Your task to perform on an android device: install app "TextNow: Call + Text Unlimited" Image 0: 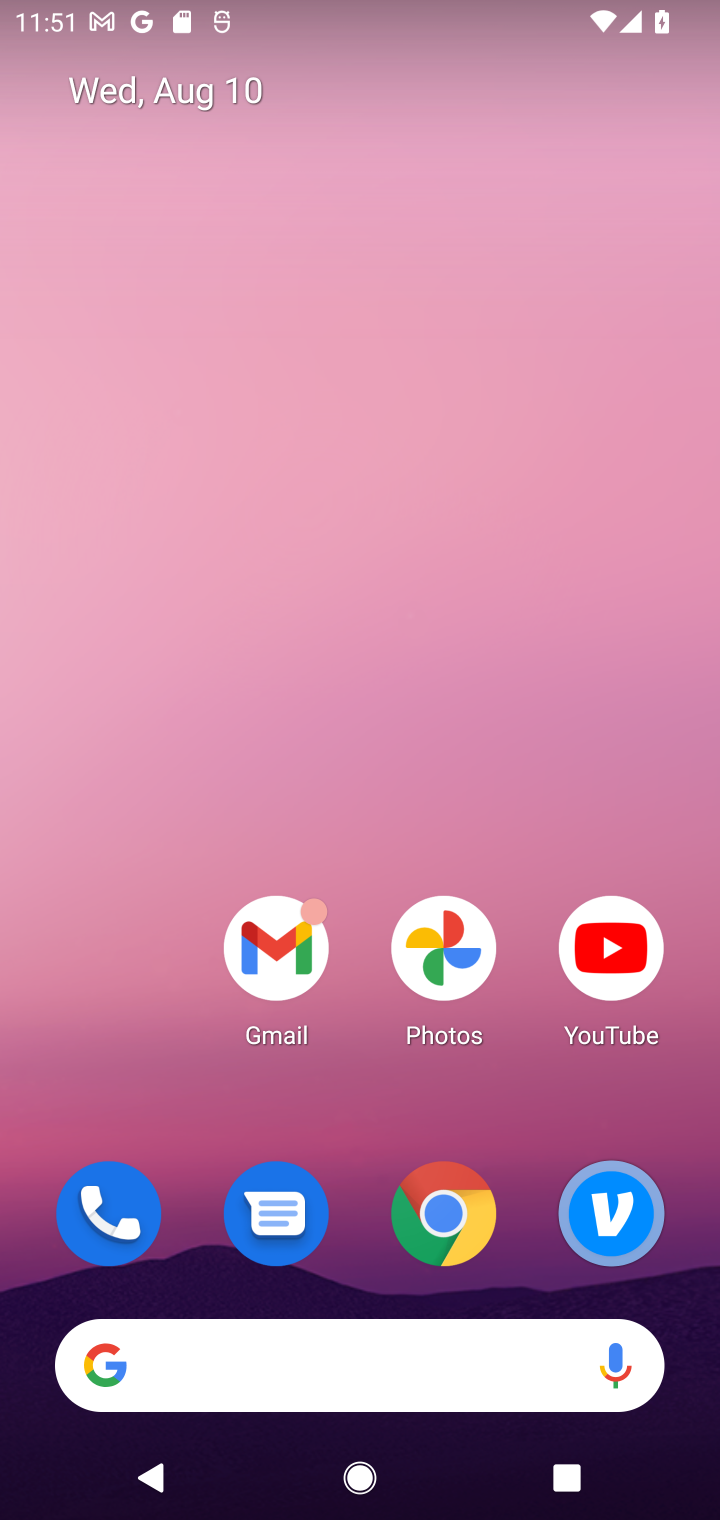
Step 0: drag from (305, 1261) to (453, 309)
Your task to perform on an android device: install app "TextNow: Call + Text Unlimited" Image 1: 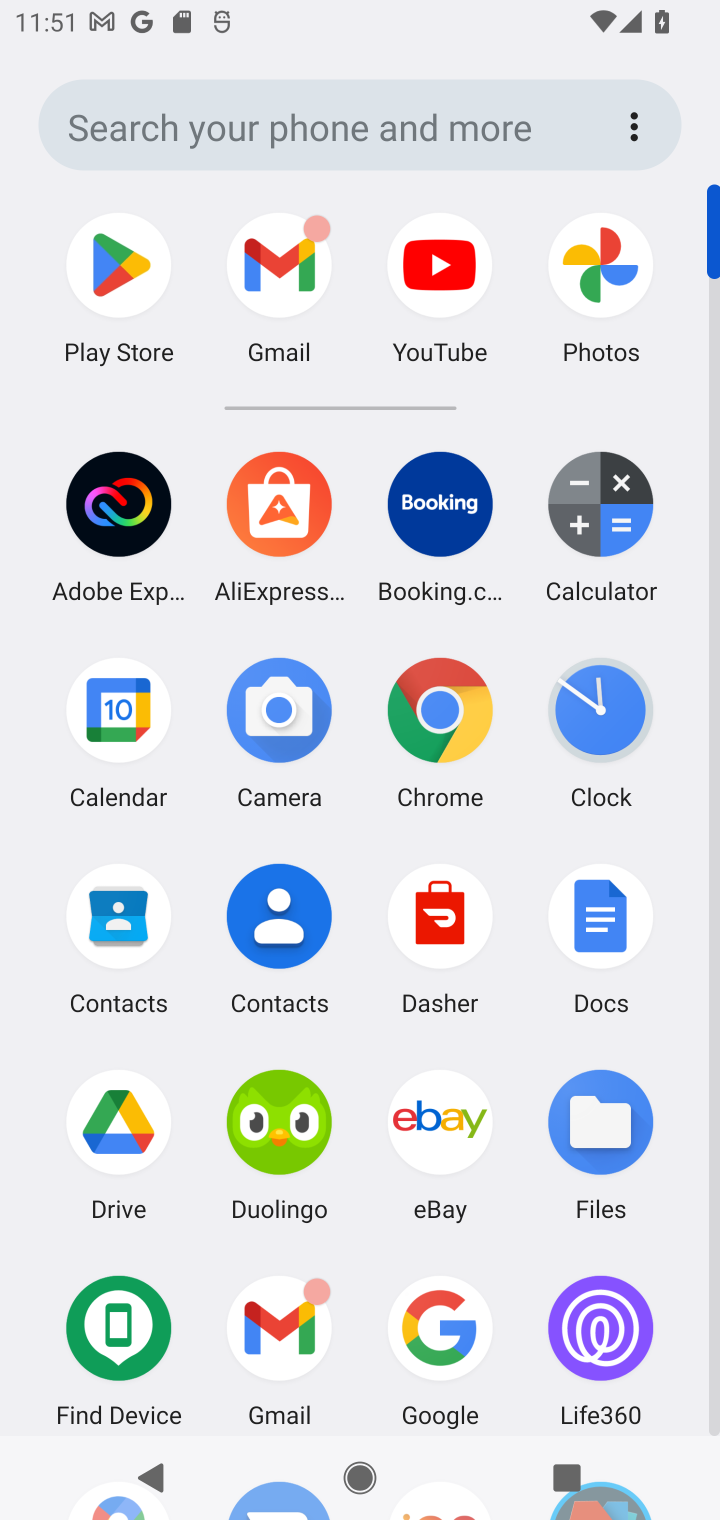
Step 1: click (124, 258)
Your task to perform on an android device: install app "TextNow: Call + Text Unlimited" Image 2: 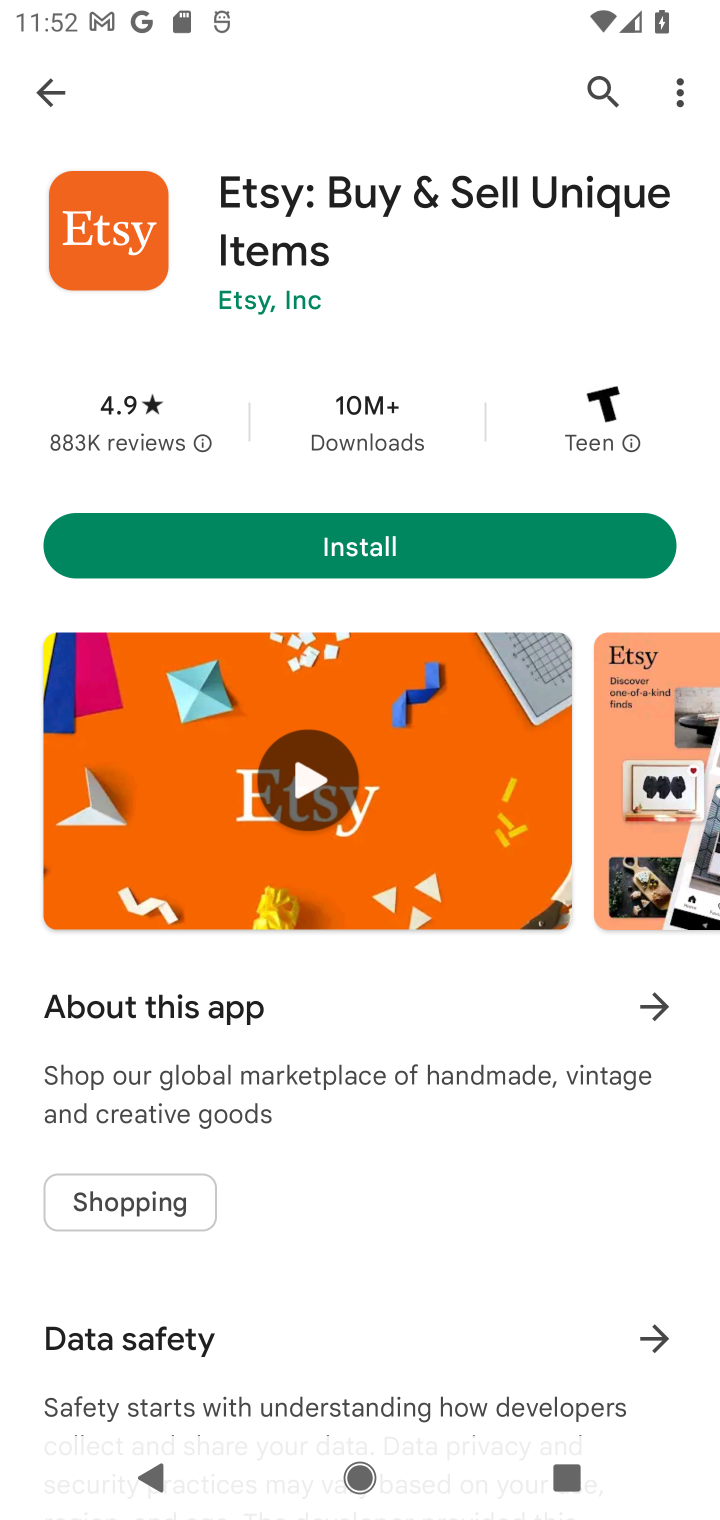
Step 2: press back button
Your task to perform on an android device: install app "TextNow: Call + Text Unlimited" Image 3: 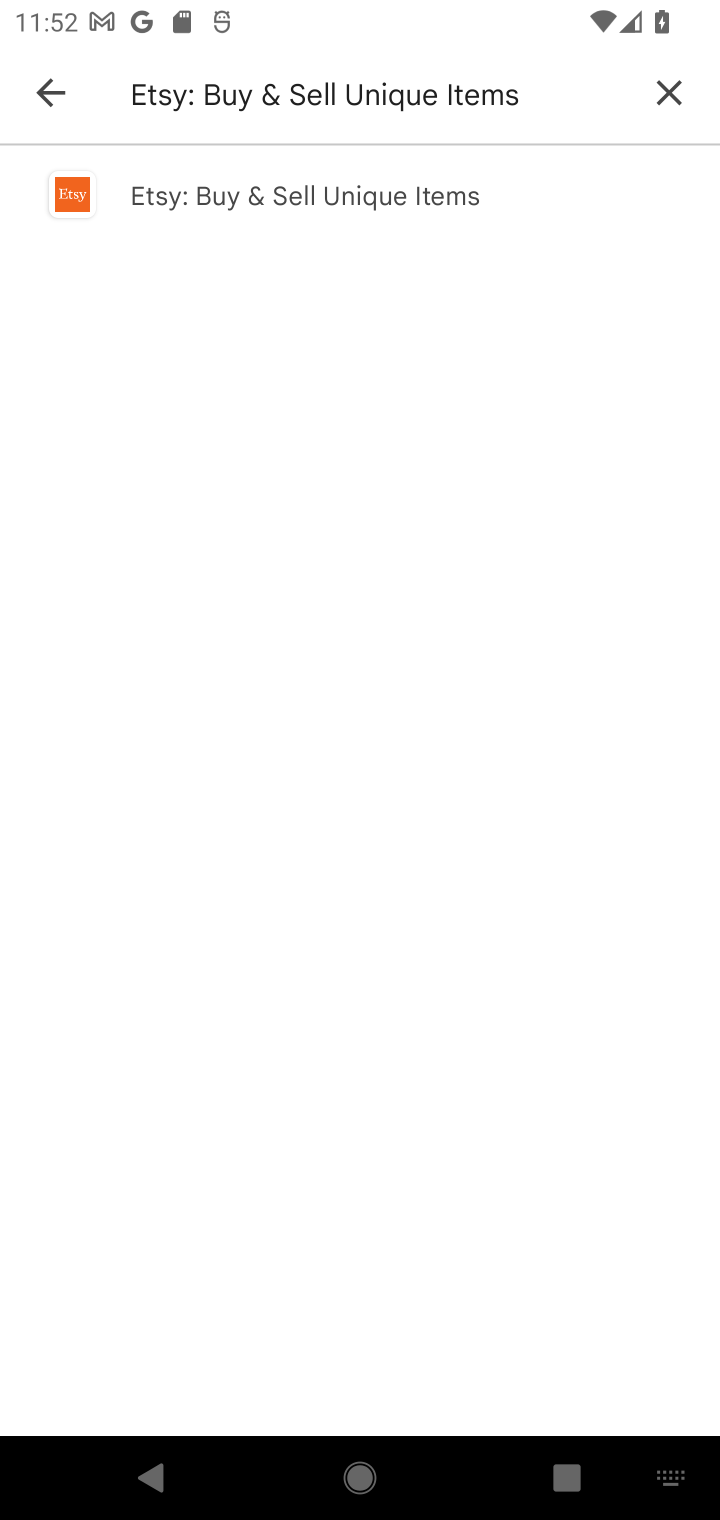
Step 3: press back button
Your task to perform on an android device: install app "TextNow: Call + Text Unlimited" Image 4: 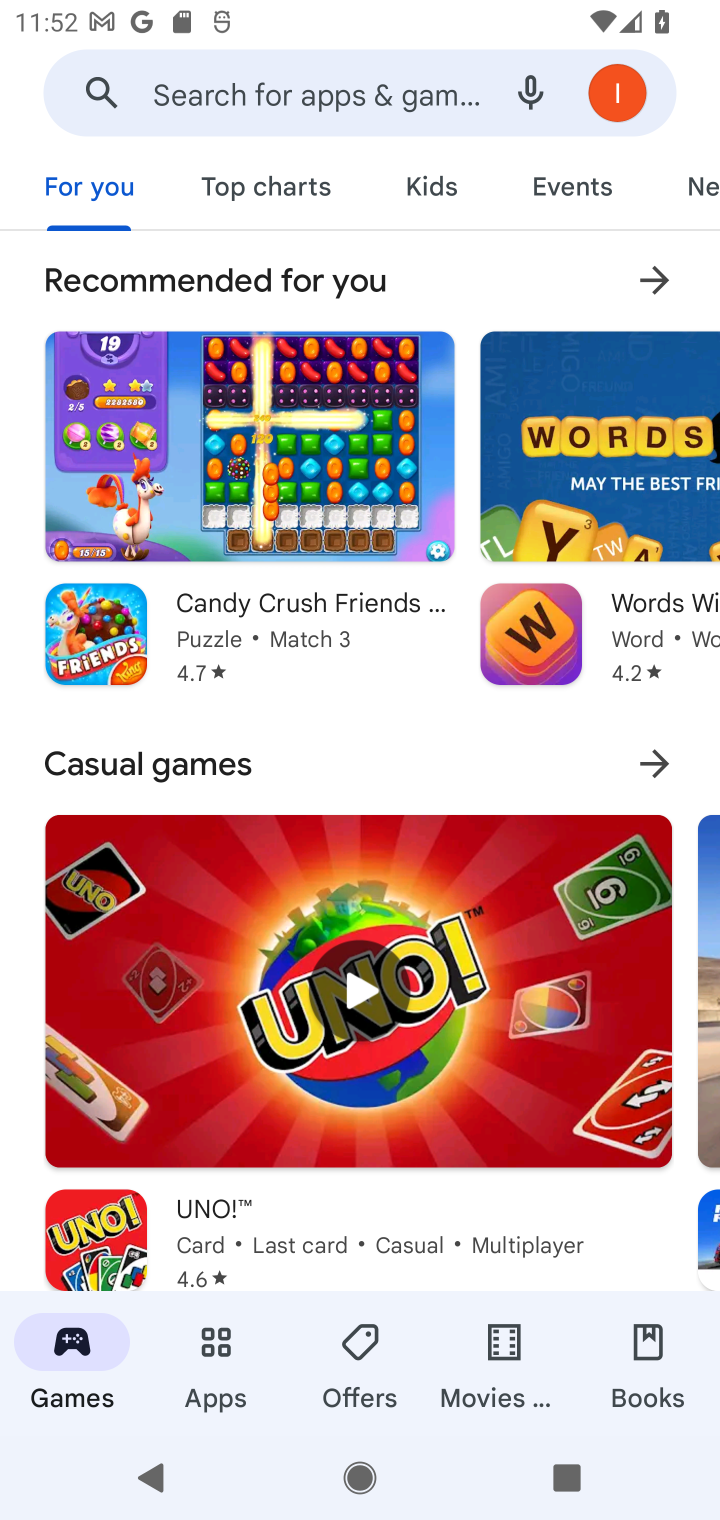
Step 4: click (411, 71)
Your task to perform on an android device: install app "TextNow: Call + Text Unlimited" Image 5: 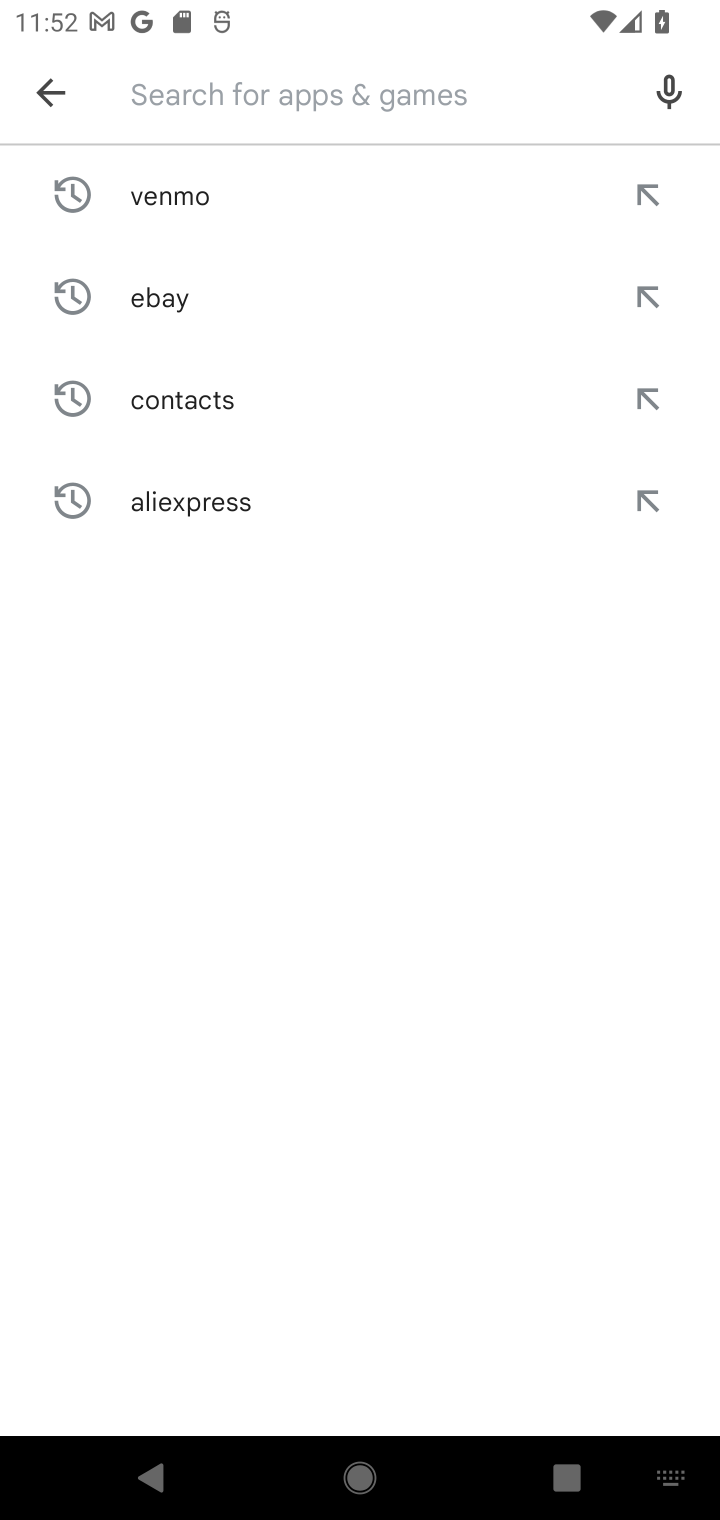
Step 5: click (240, 93)
Your task to perform on an android device: install app "TextNow: Call + Text Unlimited" Image 6: 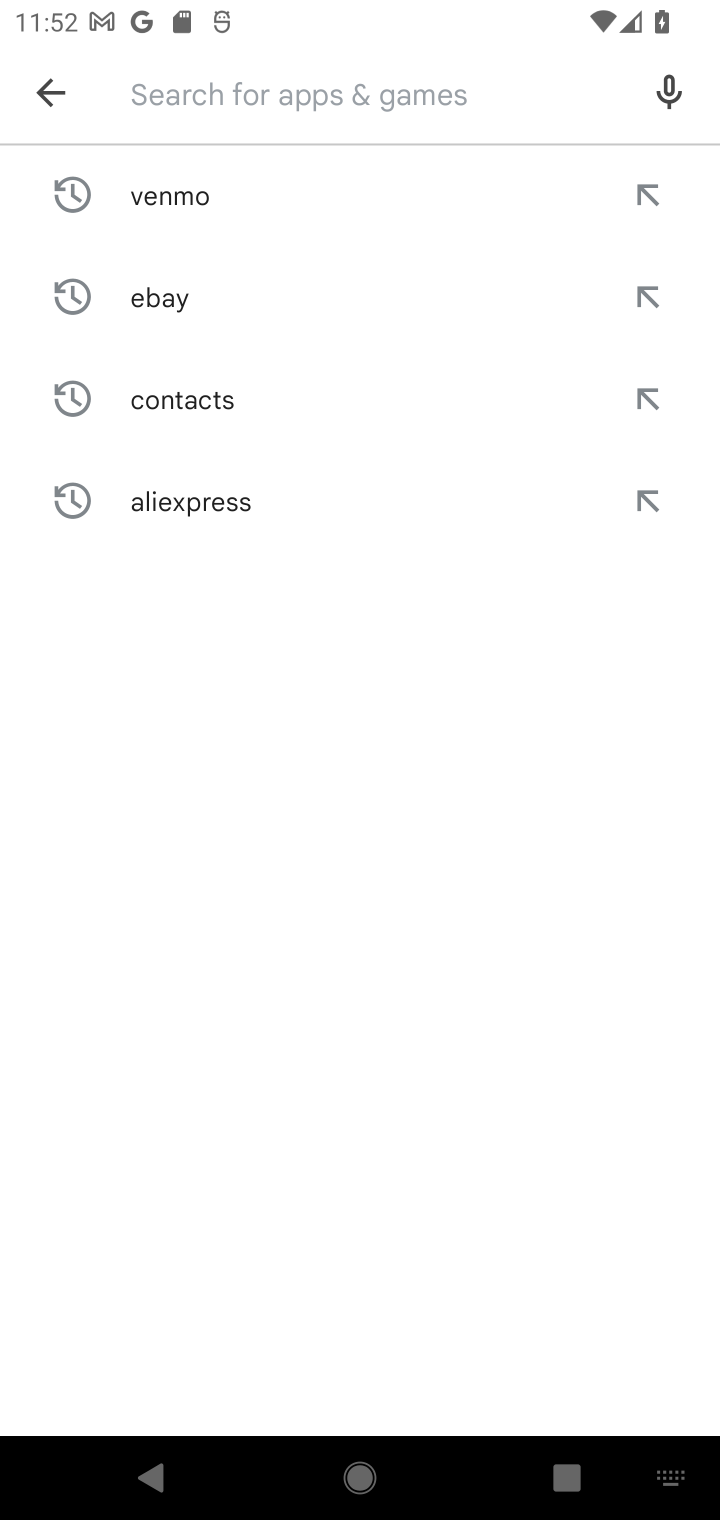
Step 6: type "TextNow: Call + Text Unlimited"
Your task to perform on an android device: install app "TextNow: Call + Text Unlimited" Image 7: 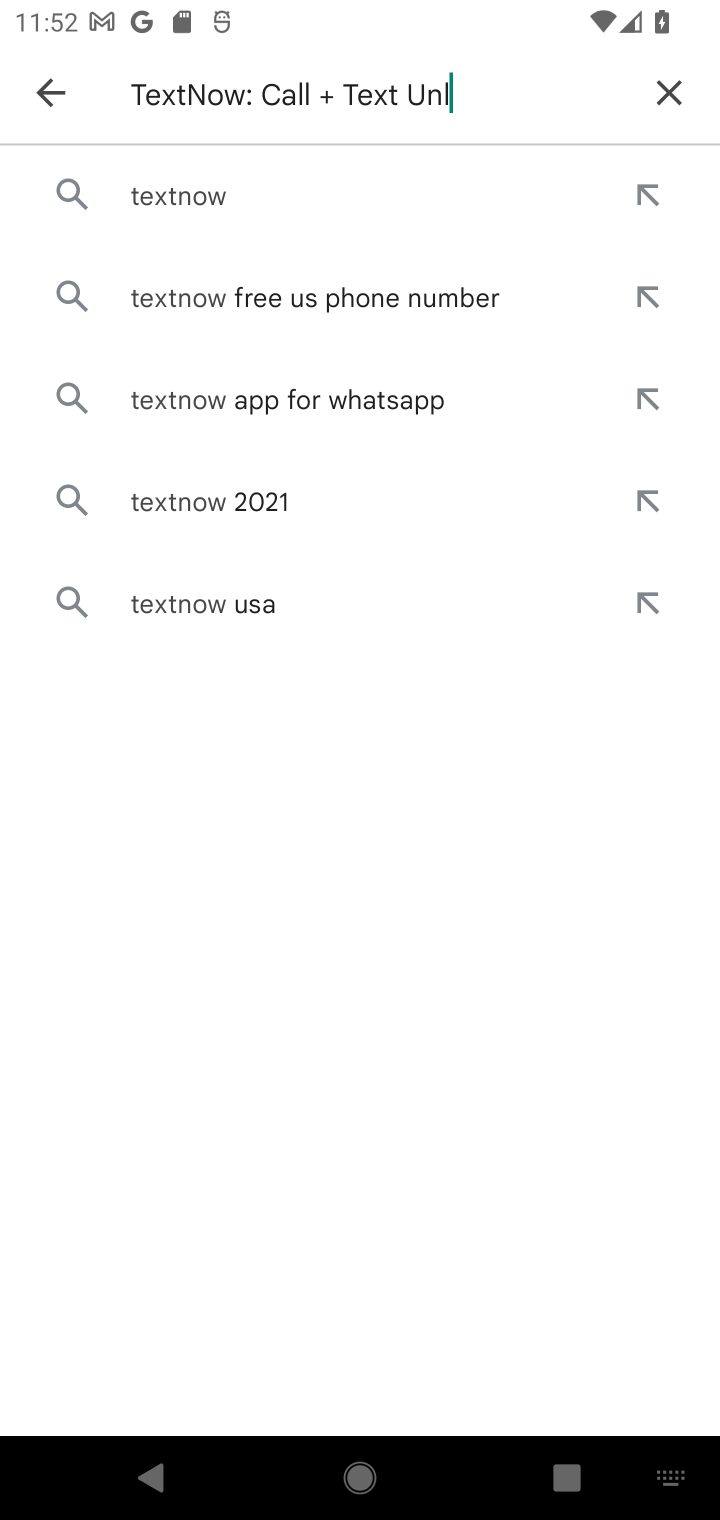
Step 7: type ""
Your task to perform on an android device: install app "TextNow: Call + Text Unlimited" Image 8: 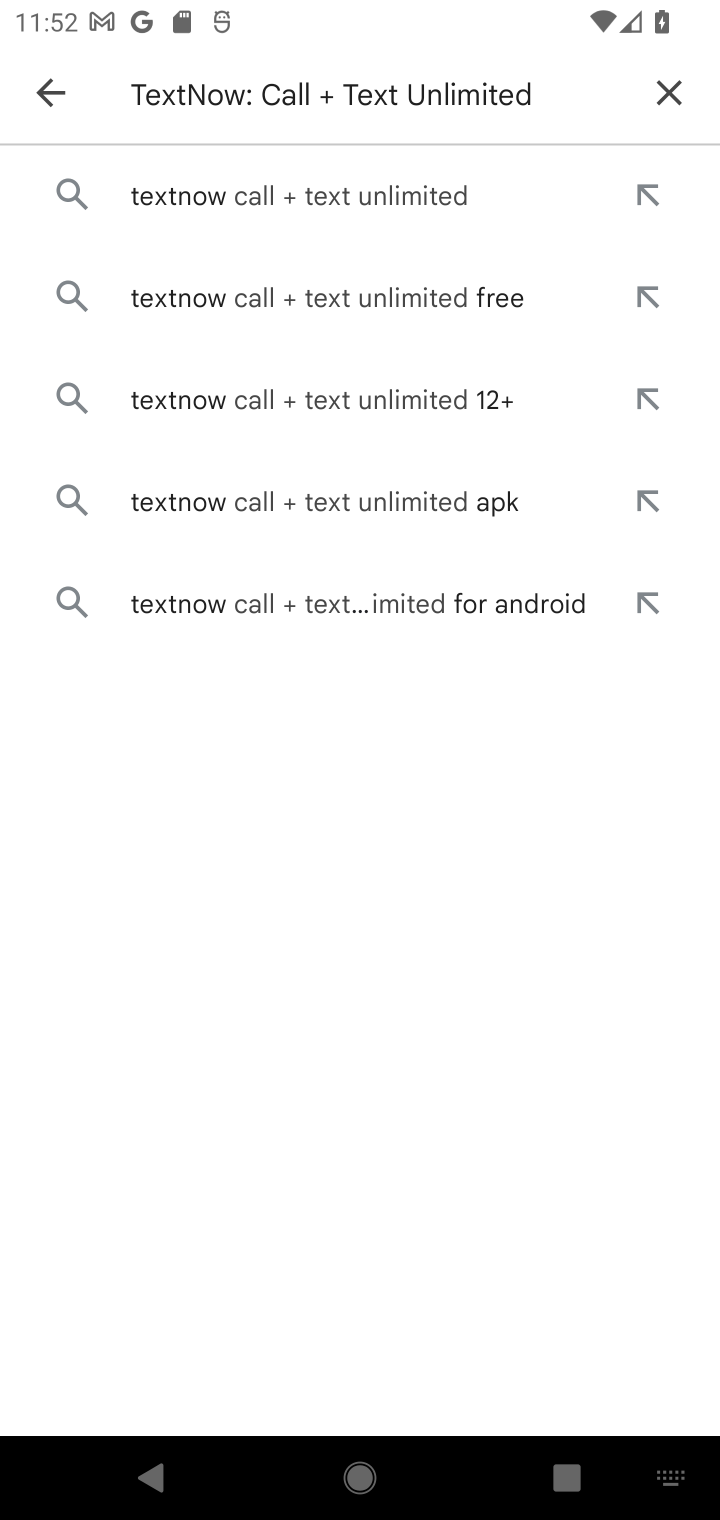
Step 8: click (279, 207)
Your task to perform on an android device: install app "TextNow: Call + Text Unlimited" Image 9: 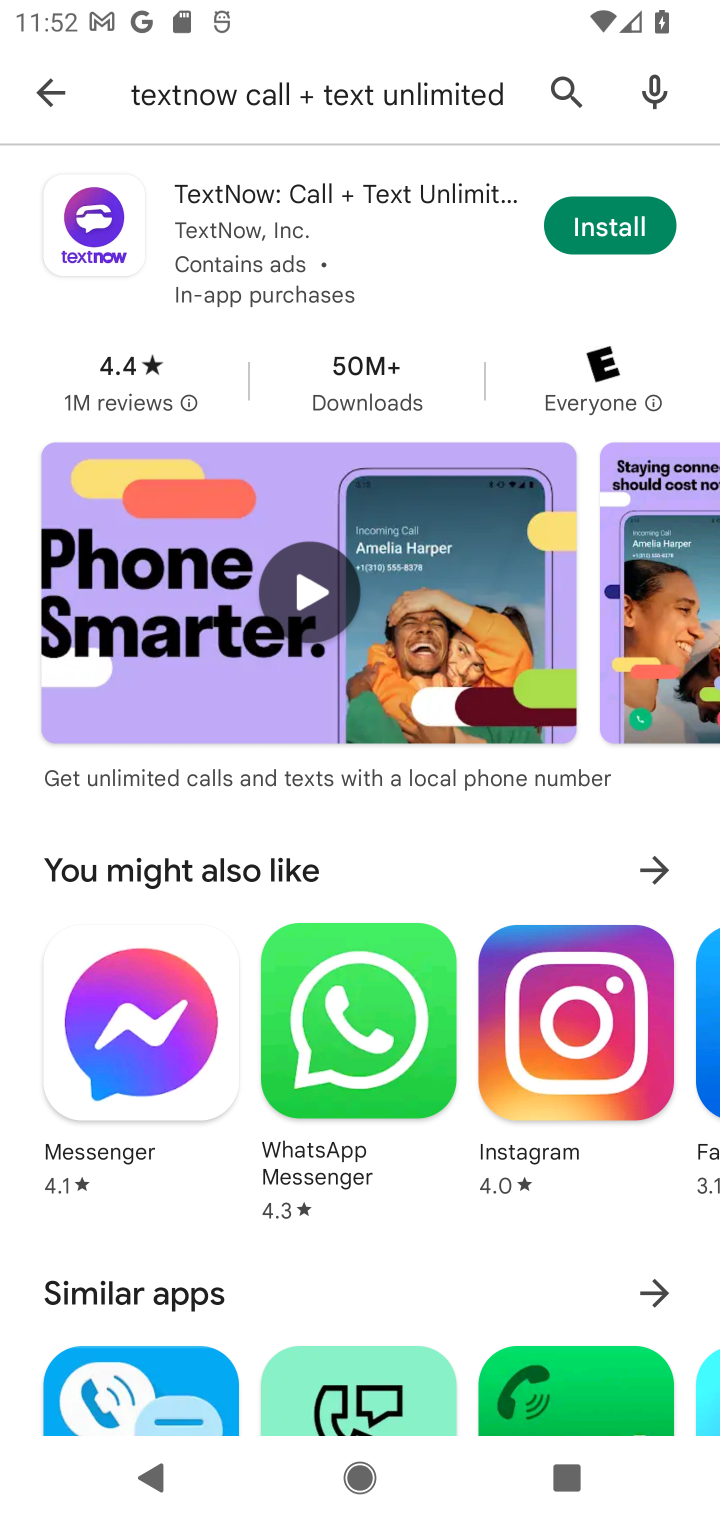
Step 9: click (609, 232)
Your task to perform on an android device: install app "TextNow: Call + Text Unlimited" Image 10: 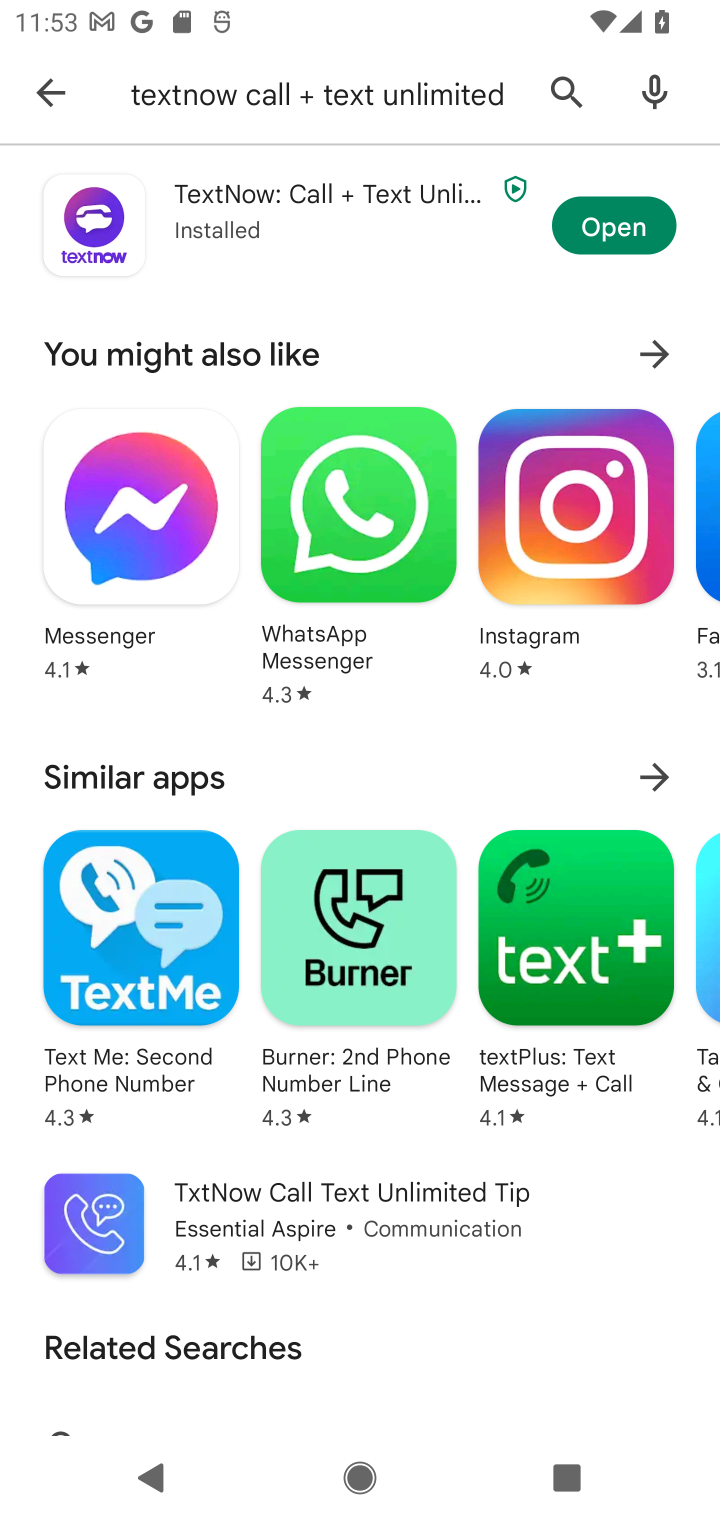
Step 10: task complete